Your task to perform on an android device: refresh tabs in the chrome app Image 0: 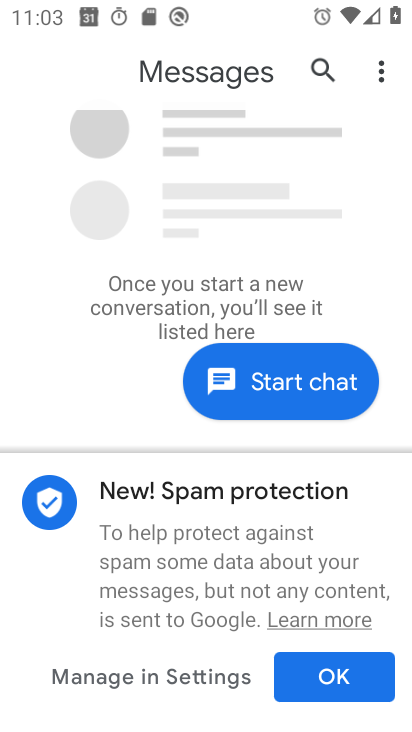
Step 0: press home button
Your task to perform on an android device: refresh tabs in the chrome app Image 1: 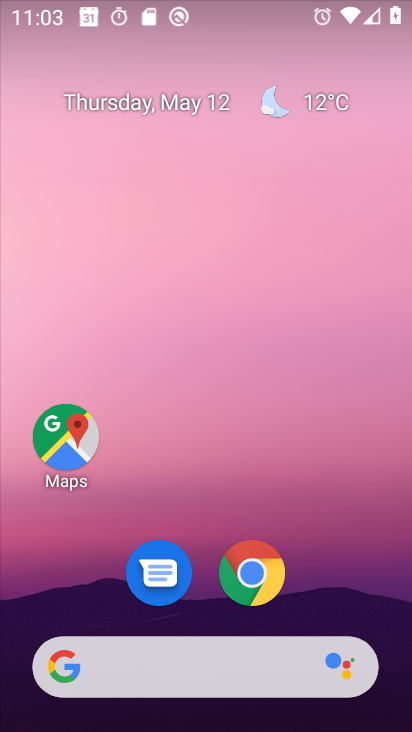
Step 1: click (263, 570)
Your task to perform on an android device: refresh tabs in the chrome app Image 2: 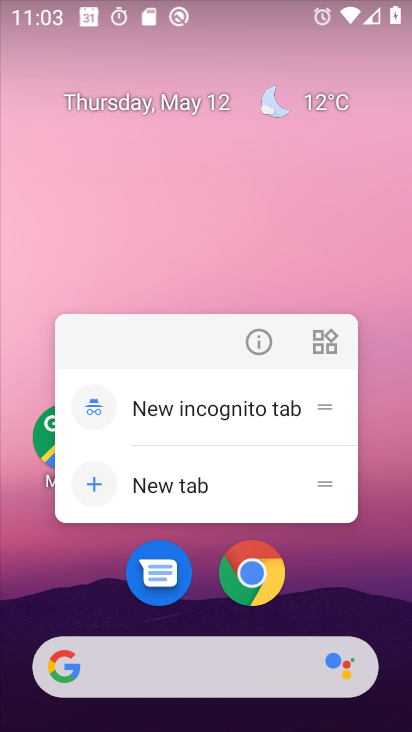
Step 2: click (255, 576)
Your task to perform on an android device: refresh tabs in the chrome app Image 3: 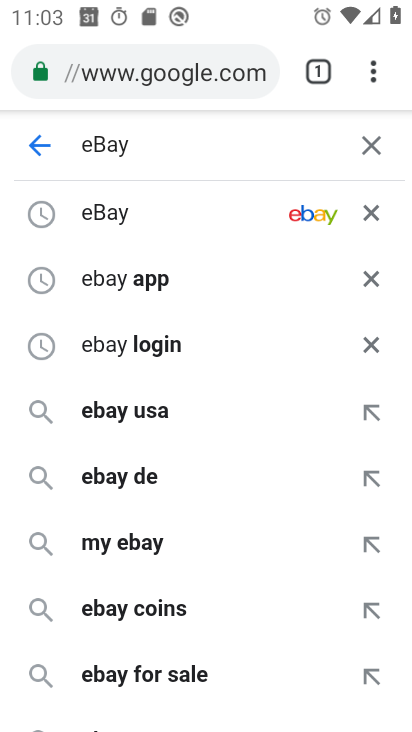
Step 3: click (368, 71)
Your task to perform on an android device: refresh tabs in the chrome app Image 4: 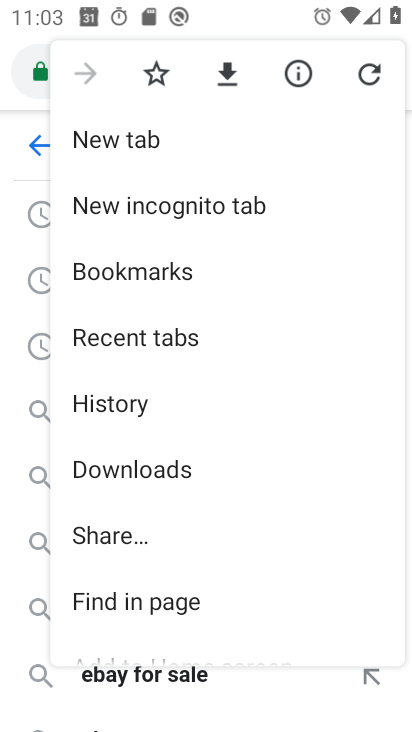
Step 4: drag from (272, 623) to (286, 350)
Your task to perform on an android device: refresh tabs in the chrome app Image 5: 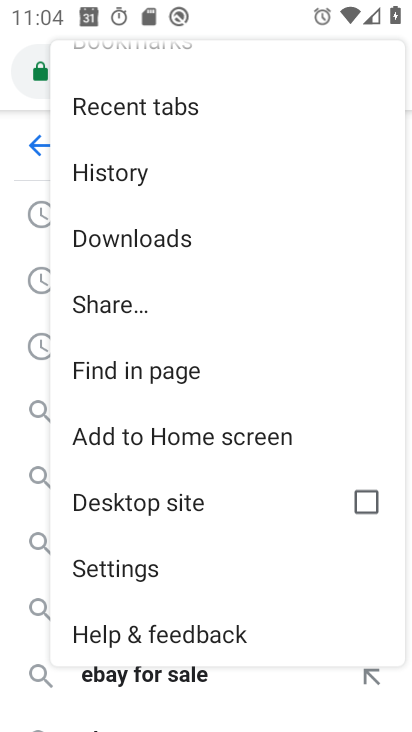
Step 5: drag from (274, 616) to (287, 394)
Your task to perform on an android device: refresh tabs in the chrome app Image 6: 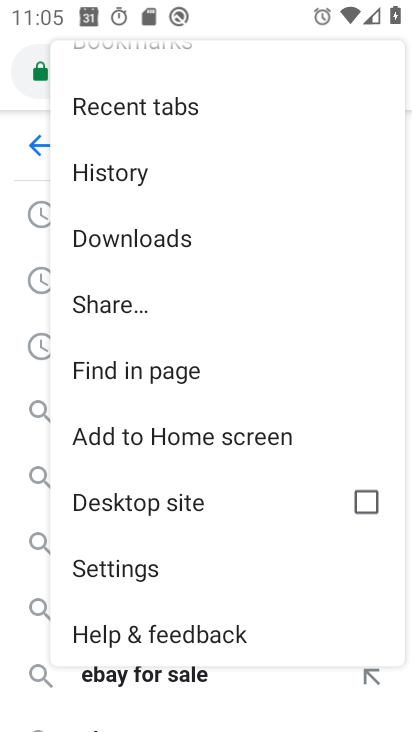
Step 6: drag from (298, 109) to (323, 379)
Your task to perform on an android device: refresh tabs in the chrome app Image 7: 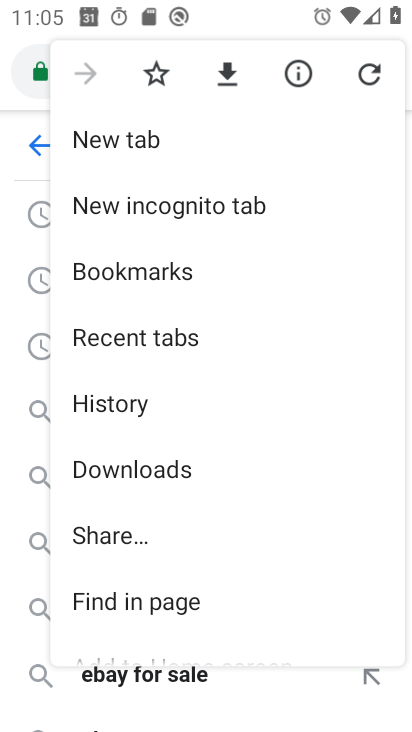
Step 7: click (361, 71)
Your task to perform on an android device: refresh tabs in the chrome app Image 8: 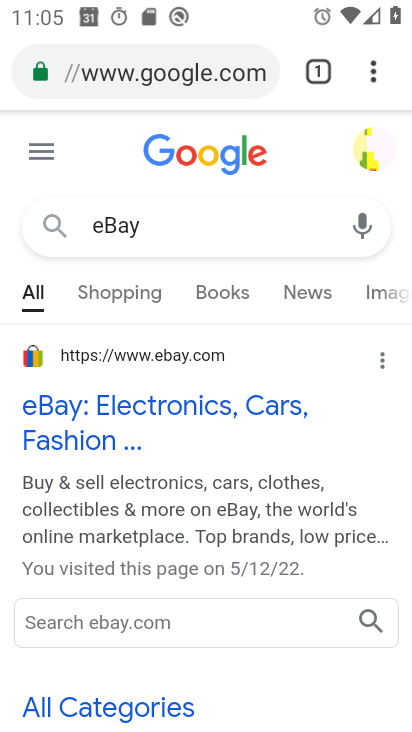
Step 8: task complete